Your task to perform on an android device: Open the stopwatch Image 0: 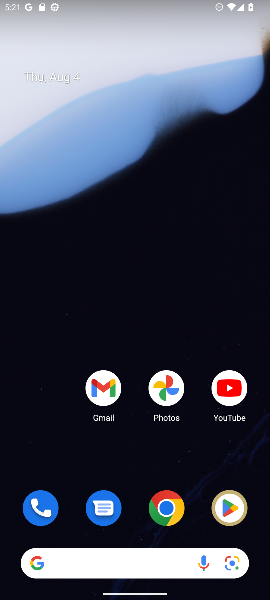
Step 0: drag from (169, 461) to (231, 116)
Your task to perform on an android device: Open the stopwatch Image 1: 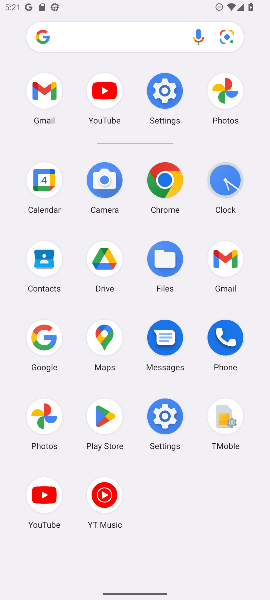
Step 1: click (217, 186)
Your task to perform on an android device: Open the stopwatch Image 2: 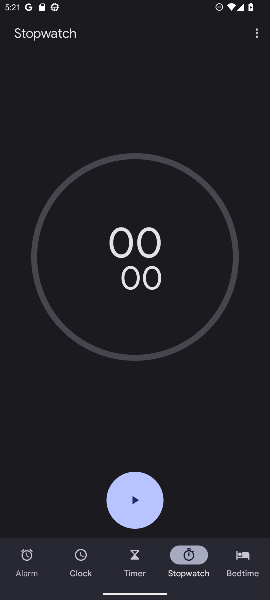
Step 2: click (142, 498)
Your task to perform on an android device: Open the stopwatch Image 3: 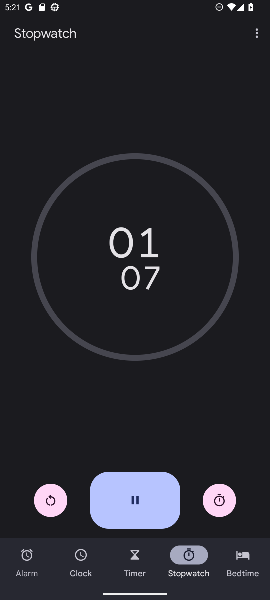
Step 3: task complete